Your task to perform on an android device: toggle notification dots Image 0: 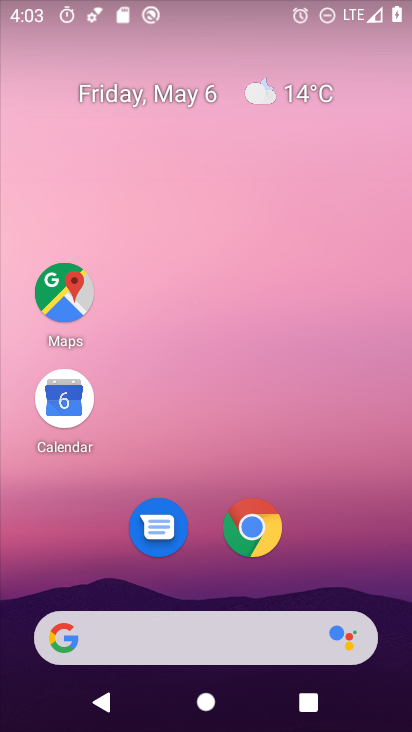
Step 0: drag from (341, 543) to (290, 89)
Your task to perform on an android device: toggle notification dots Image 1: 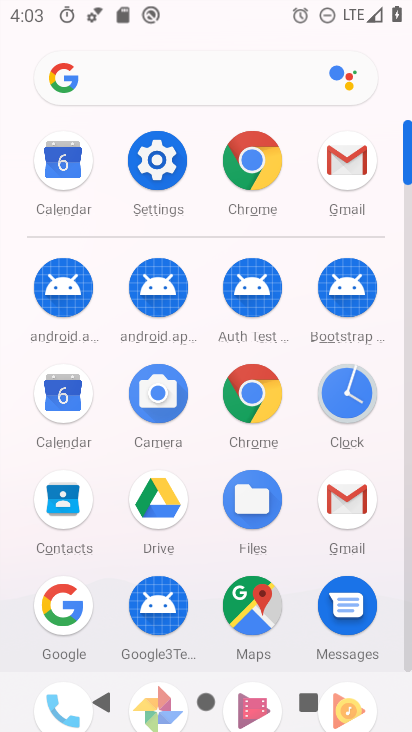
Step 1: click (162, 172)
Your task to perform on an android device: toggle notification dots Image 2: 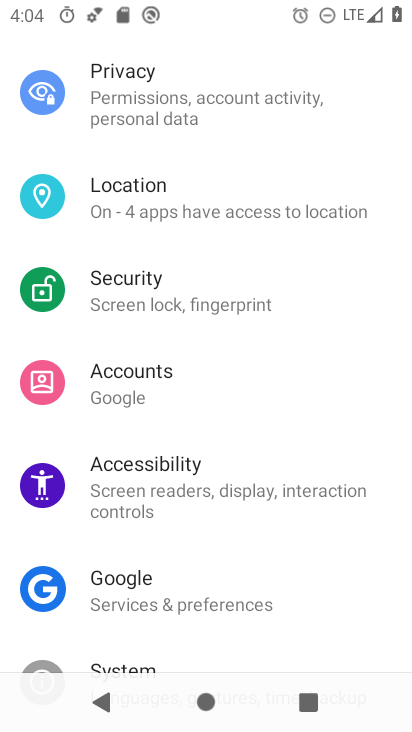
Step 2: drag from (218, 211) to (269, 639)
Your task to perform on an android device: toggle notification dots Image 3: 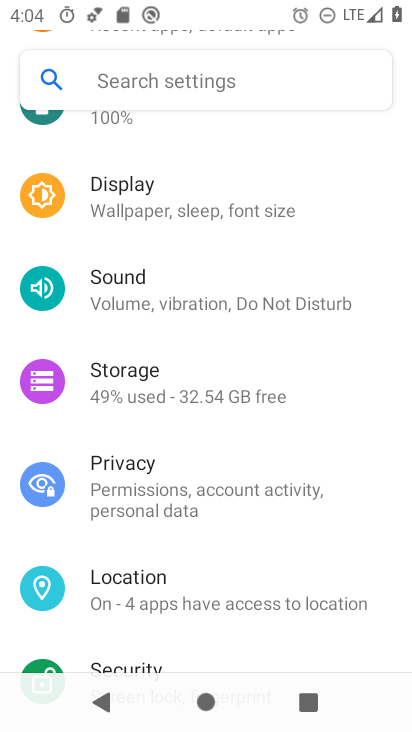
Step 3: drag from (237, 217) to (273, 629)
Your task to perform on an android device: toggle notification dots Image 4: 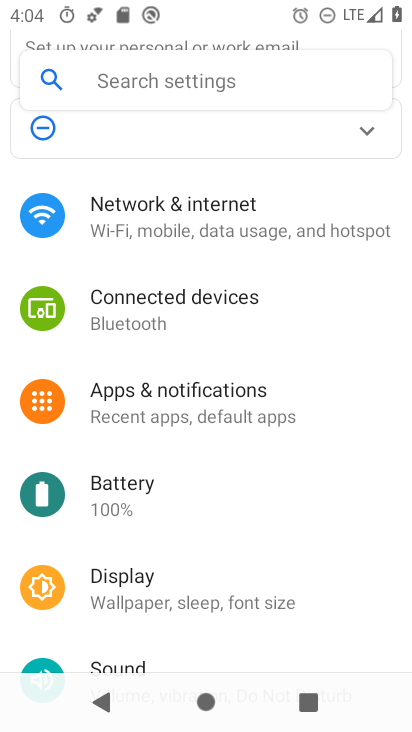
Step 4: click (199, 400)
Your task to perform on an android device: toggle notification dots Image 5: 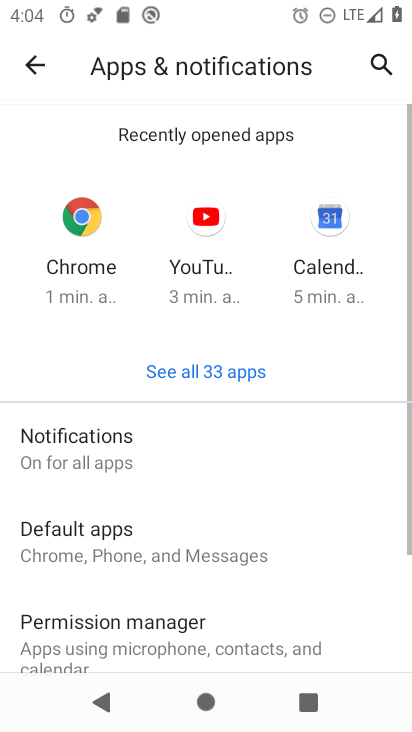
Step 5: click (110, 423)
Your task to perform on an android device: toggle notification dots Image 6: 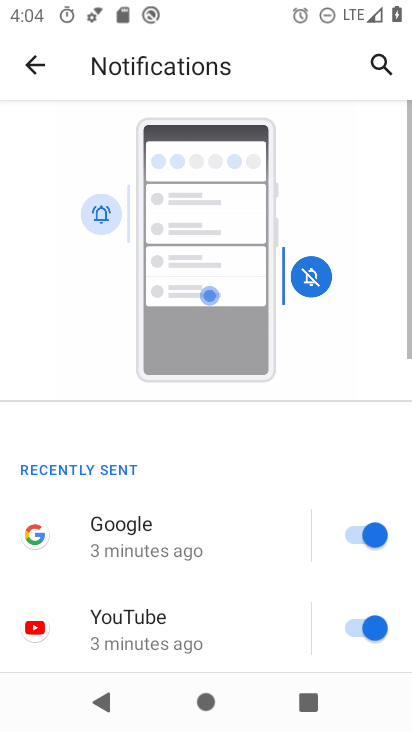
Step 6: drag from (232, 540) to (282, 73)
Your task to perform on an android device: toggle notification dots Image 7: 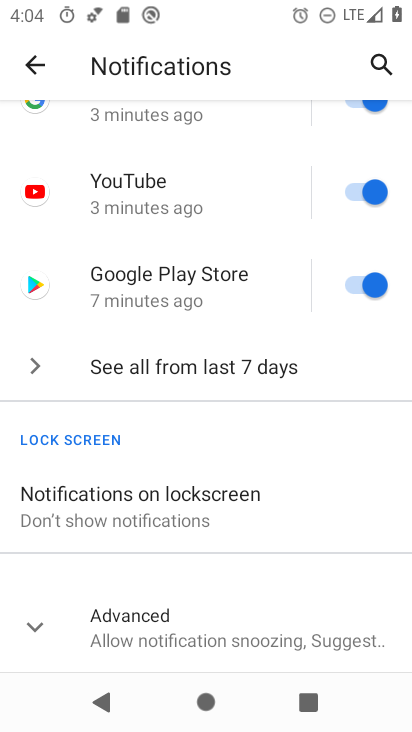
Step 7: drag from (261, 600) to (290, 164)
Your task to perform on an android device: toggle notification dots Image 8: 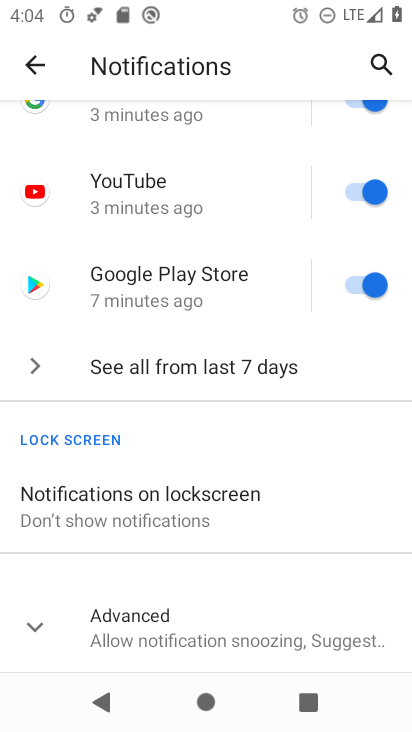
Step 8: click (139, 632)
Your task to perform on an android device: toggle notification dots Image 9: 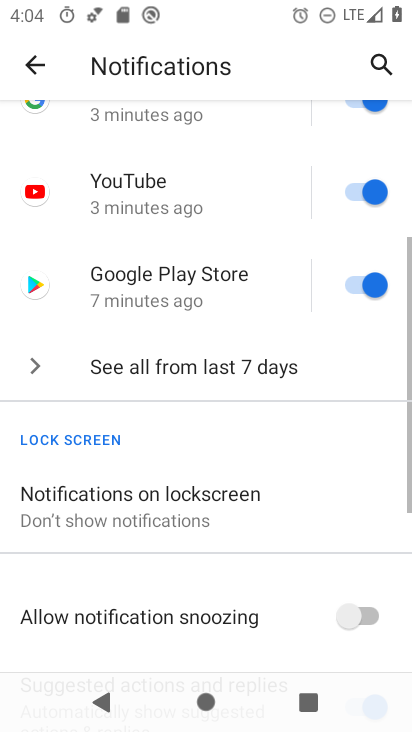
Step 9: drag from (141, 629) to (227, 221)
Your task to perform on an android device: toggle notification dots Image 10: 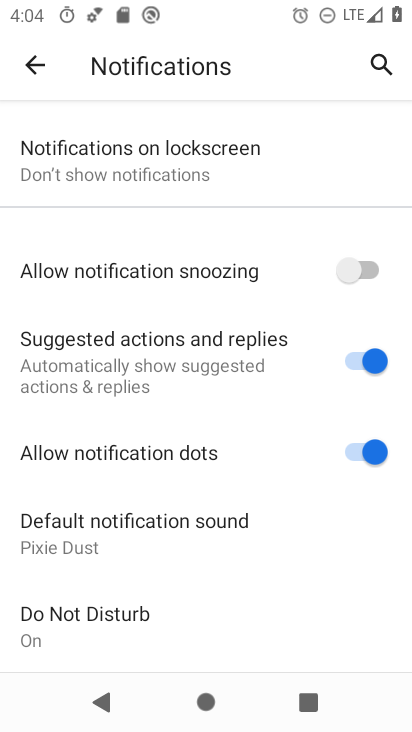
Step 10: click (346, 449)
Your task to perform on an android device: toggle notification dots Image 11: 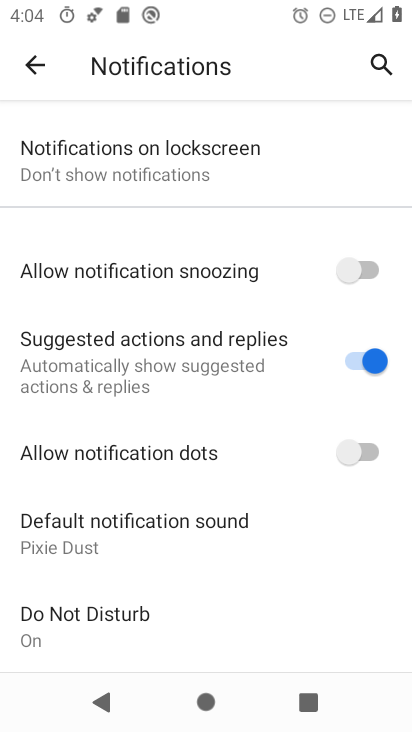
Step 11: task complete